Your task to perform on an android device: toggle priority inbox in the gmail app Image 0: 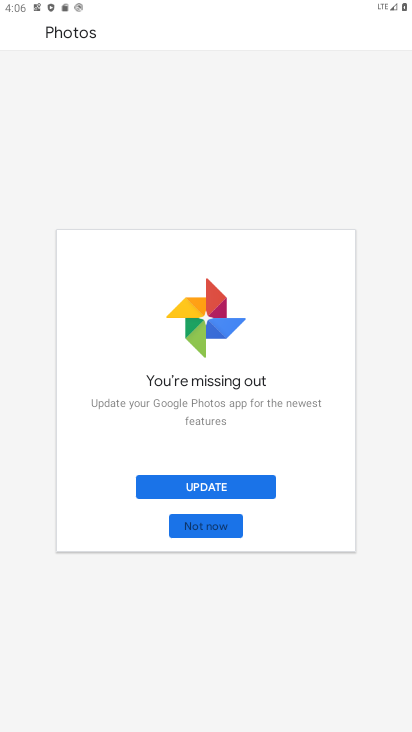
Step 0: press home button
Your task to perform on an android device: toggle priority inbox in the gmail app Image 1: 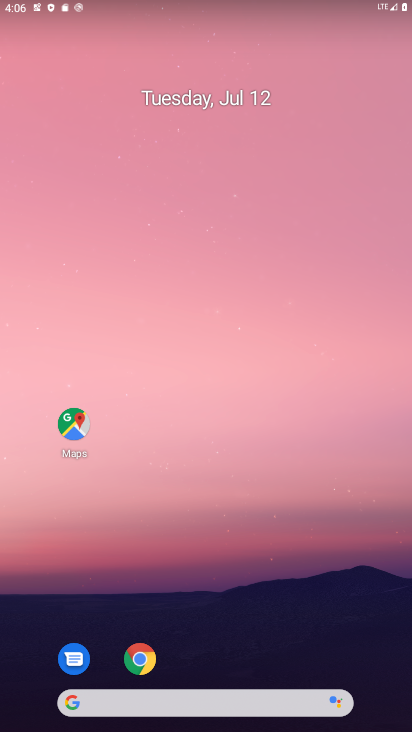
Step 1: drag from (215, 718) to (203, 249)
Your task to perform on an android device: toggle priority inbox in the gmail app Image 2: 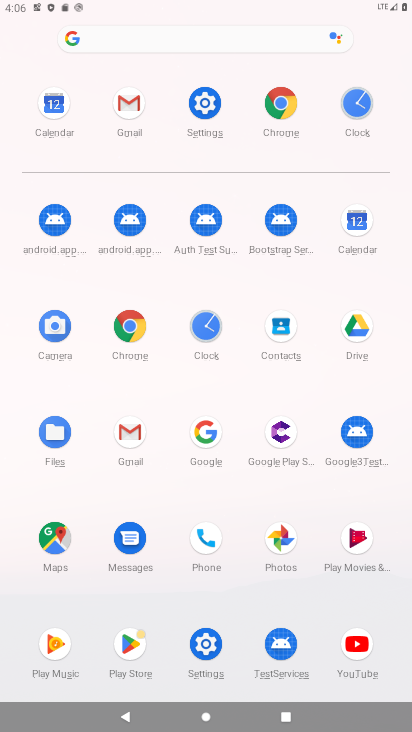
Step 2: click (133, 436)
Your task to perform on an android device: toggle priority inbox in the gmail app Image 3: 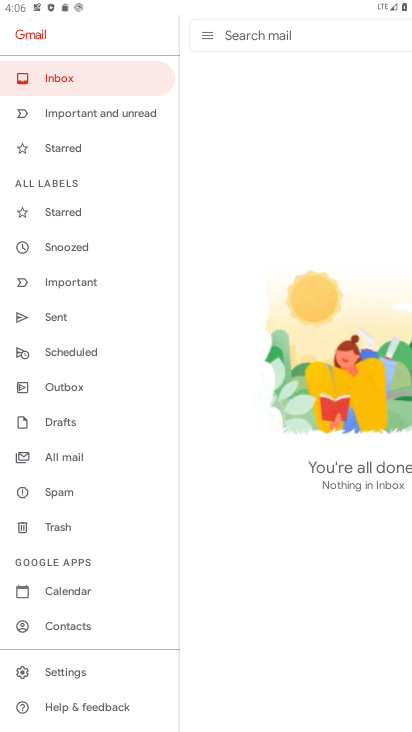
Step 3: click (68, 670)
Your task to perform on an android device: toggle priority inbox in the gmail app Image 4: 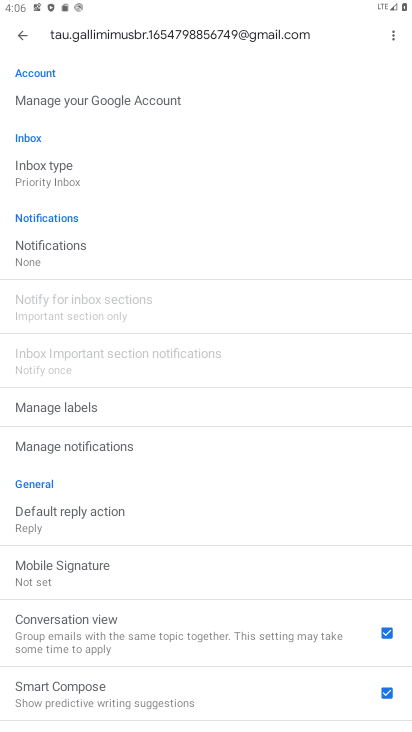
Step 4: click (44, 176)
Your task to perform on an android device: toggle priority inbox in the gmail app Image 5: 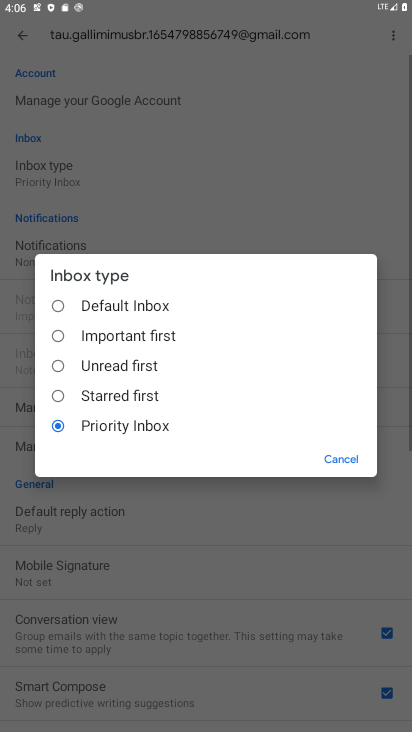
Step 5: click (59, 303)
Your task to perform on an android device: toggle priority inbox in the gmail app Image 6: 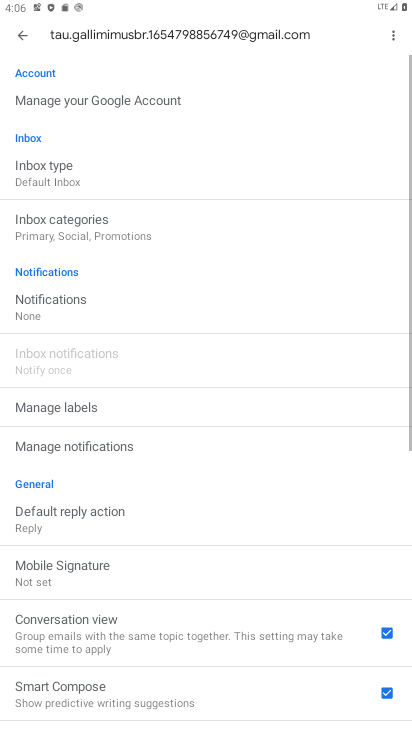
Step 6: task complete